Your task to perform on an android device: Open network settings Image 0: 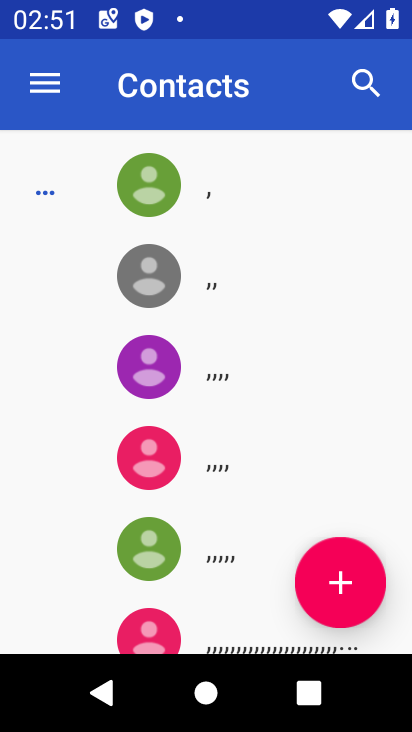
Step 0: press home button
Your task to perform on an android device: Open network settings Image 1: 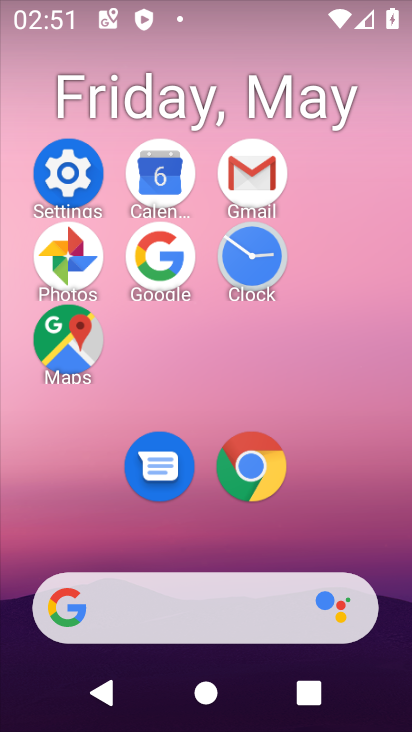
Step 1: click (50, 198)
Your task to perform on an android device: Open network settings Image 2: 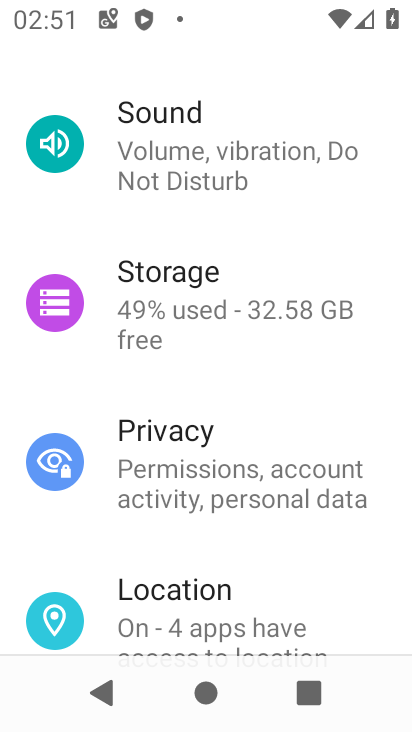
Step 2: drag from (326, 116) to (356, 511)
Your task to perform on an android device: Open network settings Image 3: 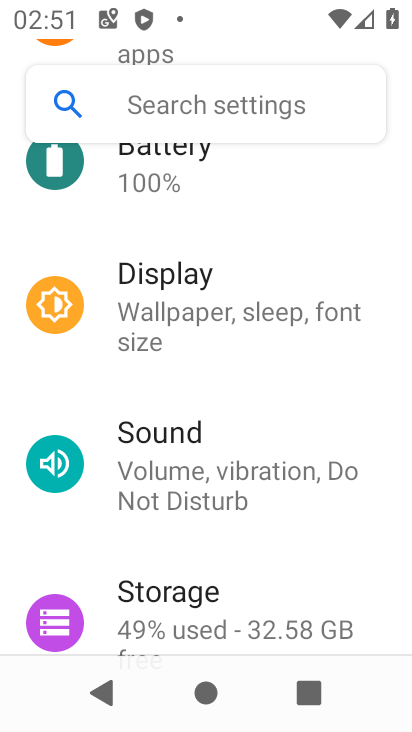
Step 3: drag from (356, 170) to (302, 580)
Your task to perform on an android device: Open network settings Image 4: 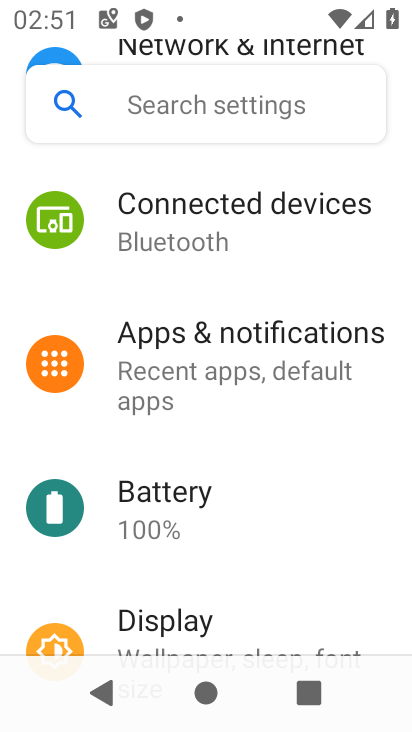
Step 4: drag from (301, 170) to (303, 528)
Your task to perform on an android device: Open network settings Image 5: 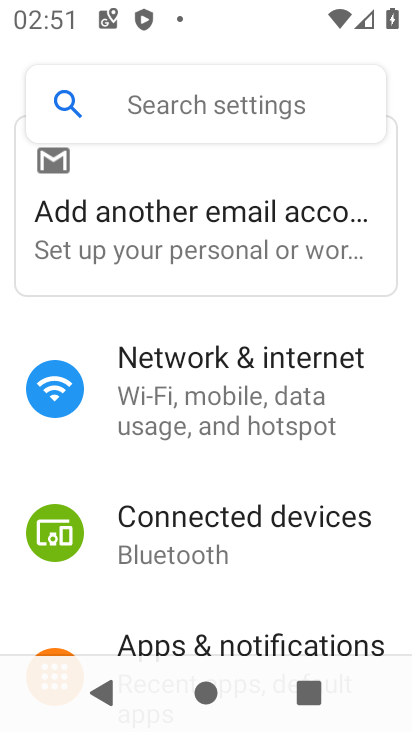
Step 5: click (279, 402)
Your task to perform on an android device: Open network settings Image 6: 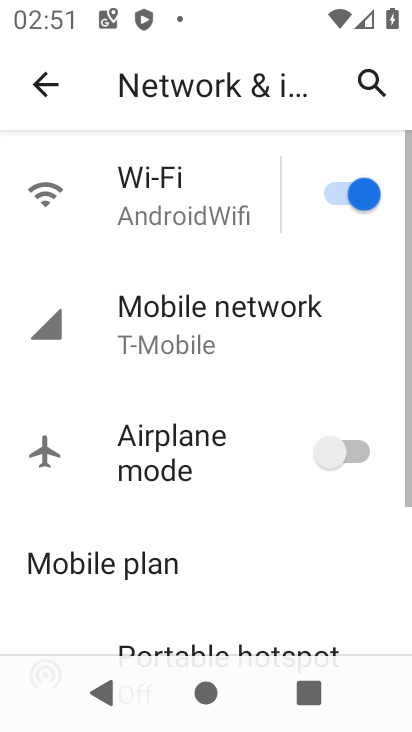
Step 6: click (241, 319)
Your task to perform on an android device: Open network settings Image 7: 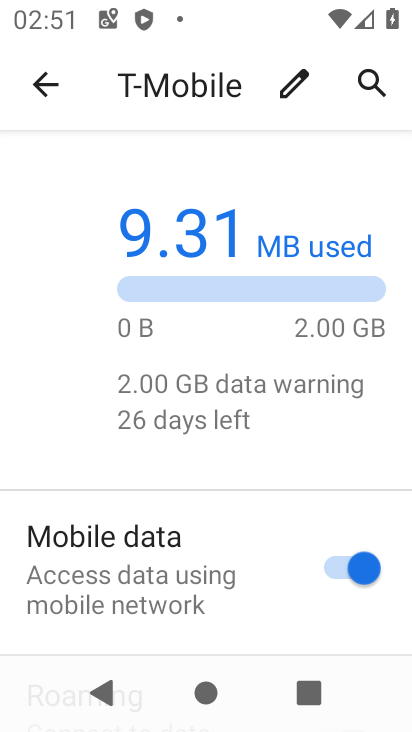
Step 7: task complete